Your task to perform on an android device: Show me popular videos on Youtube Image 0: 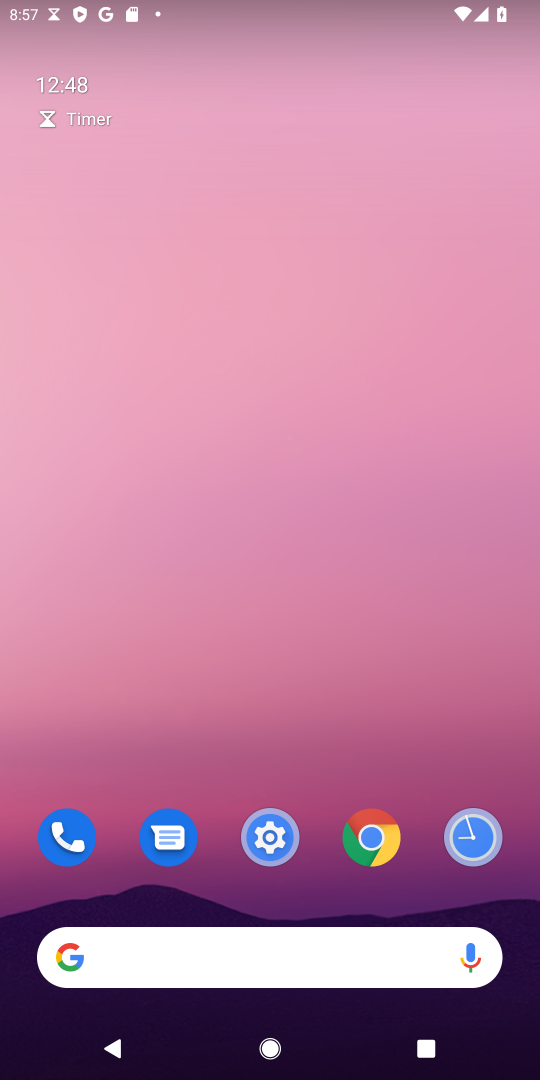
Step 0: drag from (322, 893) to (322, 94)
Your task to perform on an android device: Show me popular videos on Youtube Image 1: 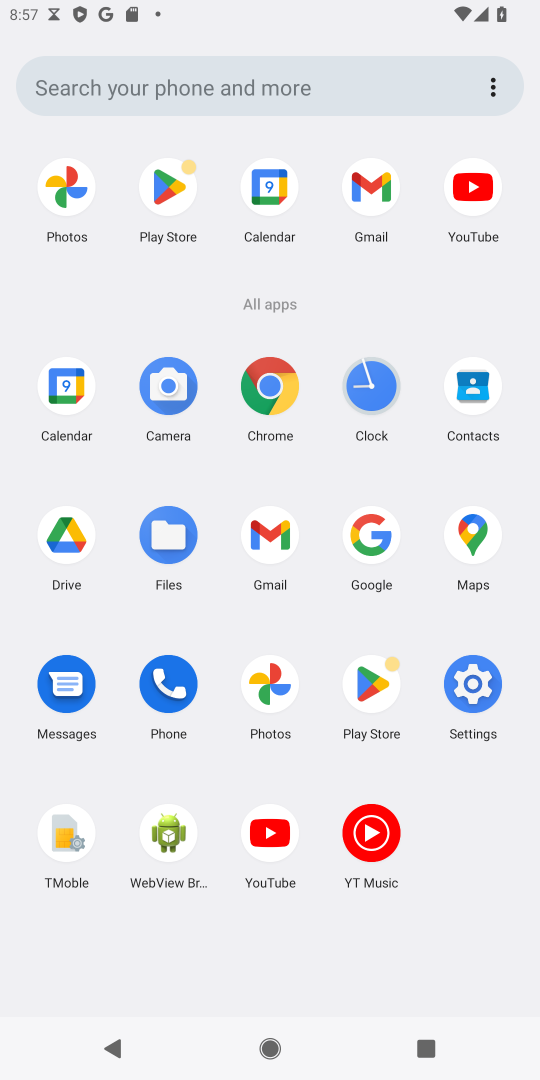
Step 1: click (271, 836)
Your task to perform on an android device: Show me popular videos on Youtube Image 2: 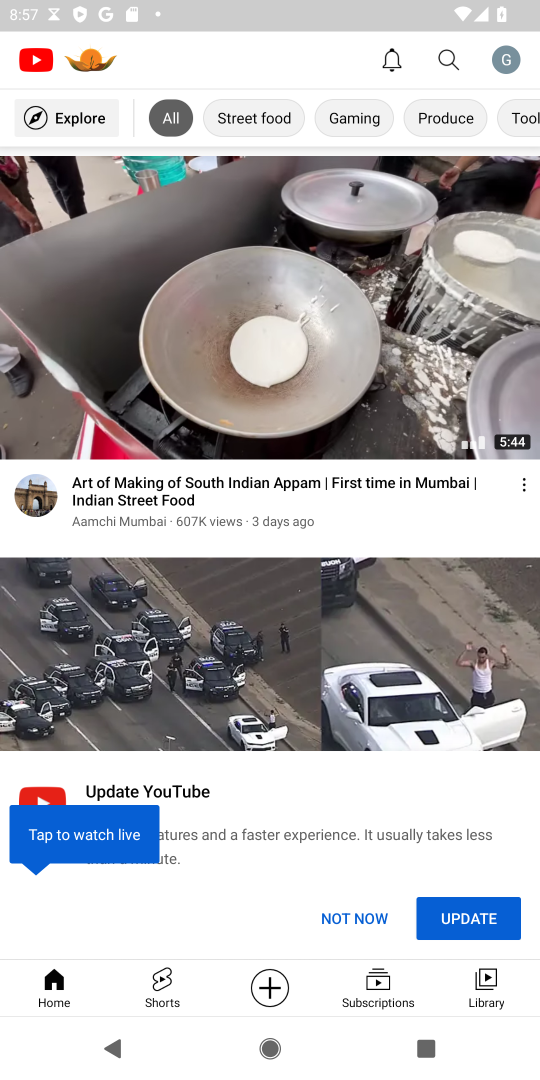
Step 2: click (447, 60)
Your task to perform on an android device: Show me popular videos on Youtube Image 3: 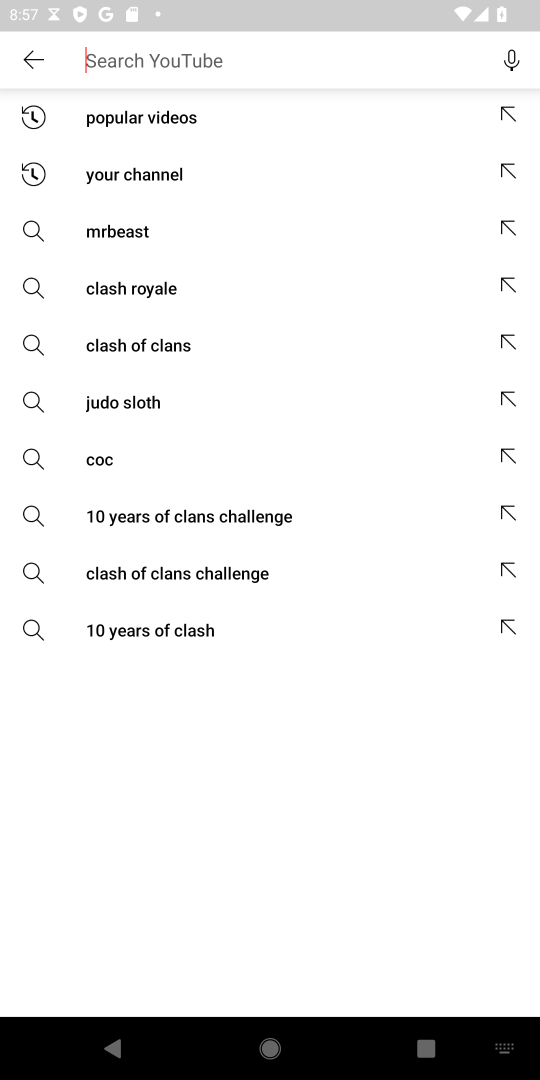
Step 3: click (153, 111)
Your task to perform on an android device: Show me popular videos on Youtube Image 4: 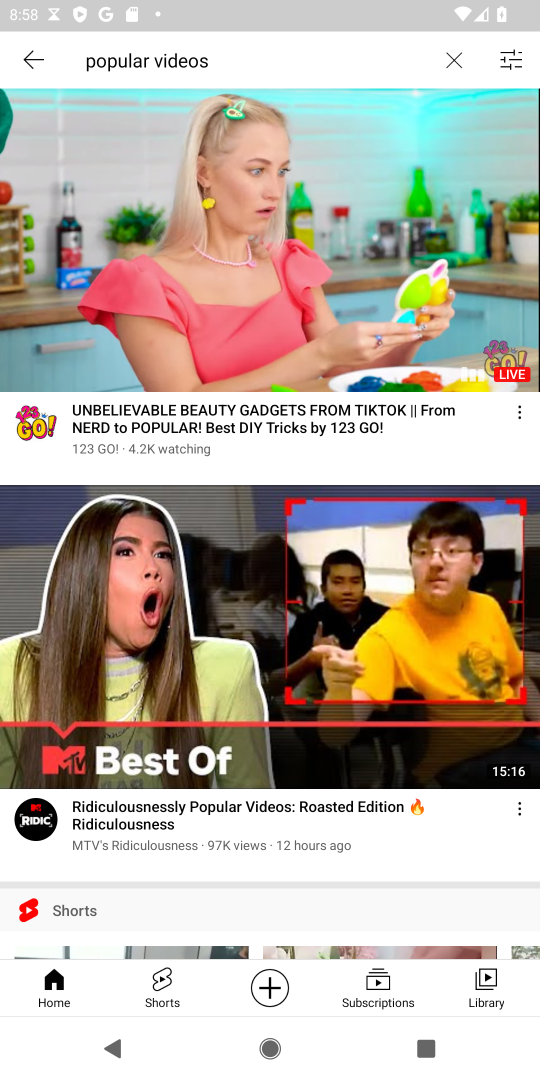
Step 4: task complete